Your task to perform on an android device: Open Amazon Image 0: 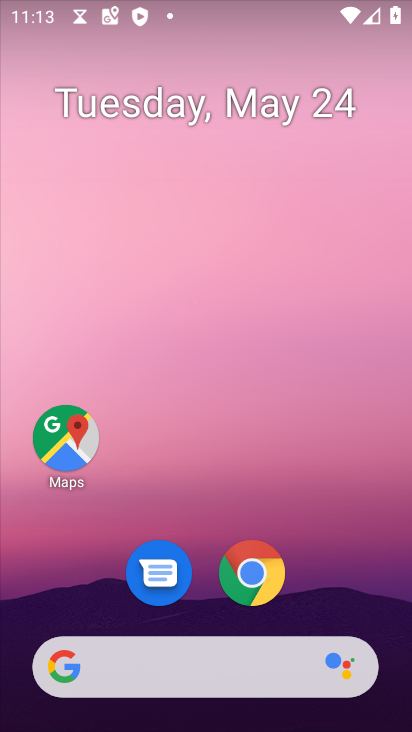
Step 0: click (266, 585)
Your task to perform on an android device: Open Amazon Image 1: 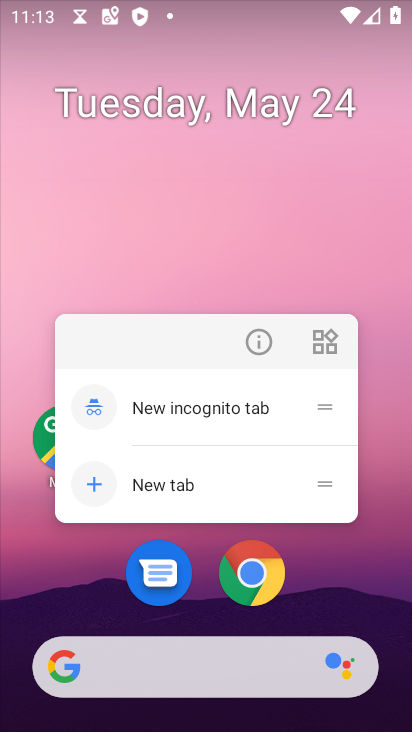
Step 1: click (265, 585)
Your task to perform on an android device: Open Amazon Image 2: 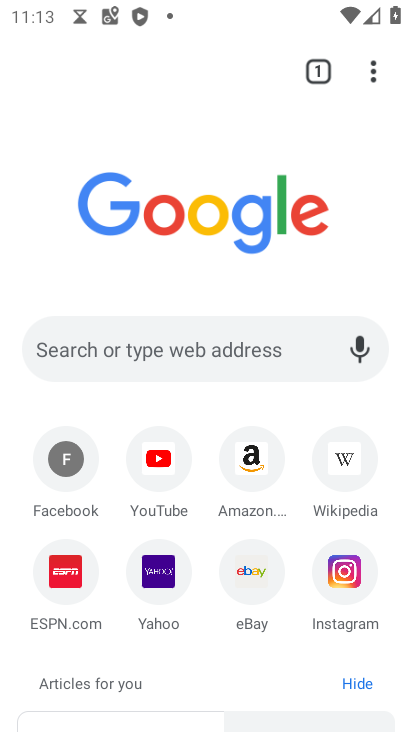
Step 2: click (244, 482)
Your task to perform on an android device: Open Amazon Image 3: 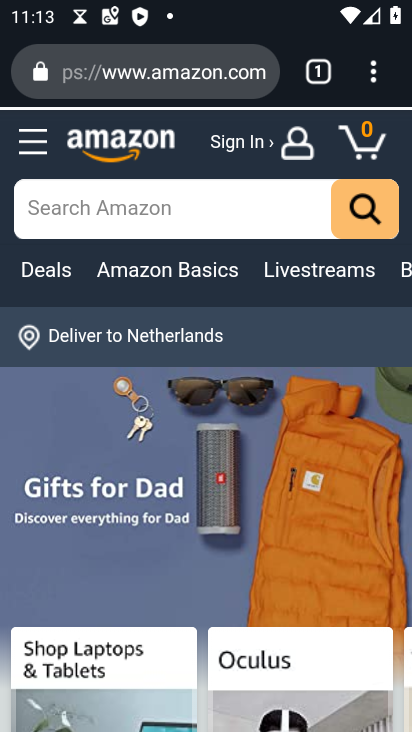
Step 3: task complete